Your task to perform on an android device: change the clock style Image 0: 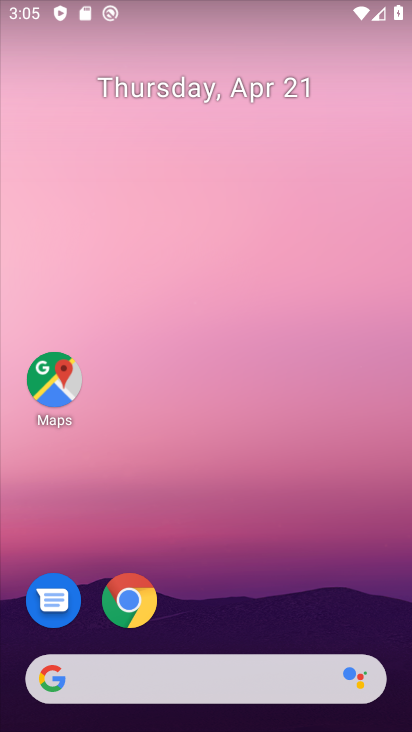
Step 0: drag from (268, 620) to (289, 71)
Your task to perform on an android device: change the clock style Image 1: 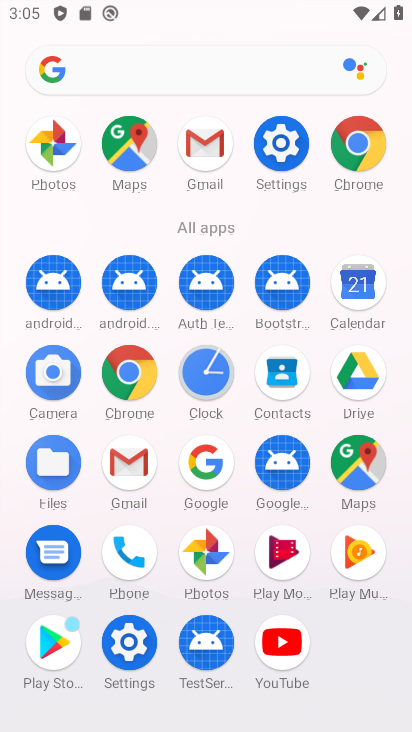
Step 1: click (206, 379)
Your task to perform on an android device: change the clock style Image 2: 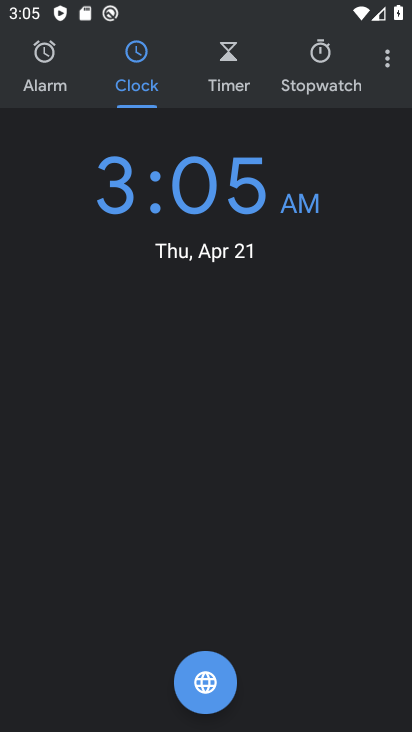
Step 2: click (375, 70)
Your task to perform on an android device: change the clock style Image 3: 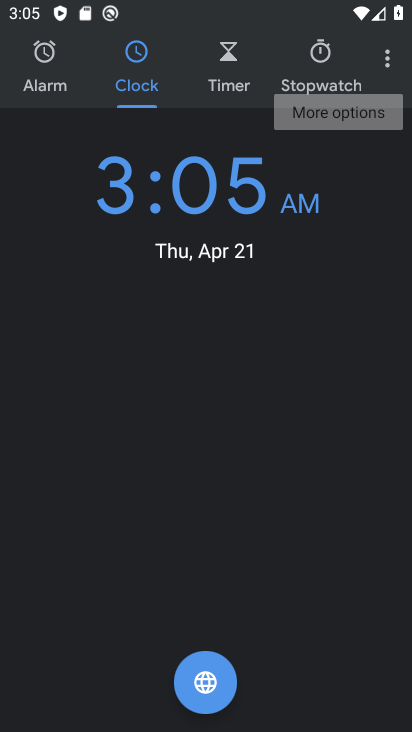
Step 3: click (390, 61)
Your task to perform on an android device: change the clock style Image 4: 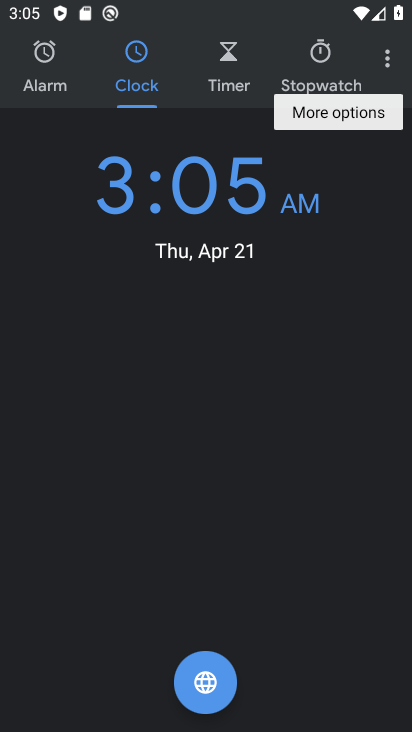
Step 4: click (390, 61)
Your task to perform on an android device: change the clock style Image 5: 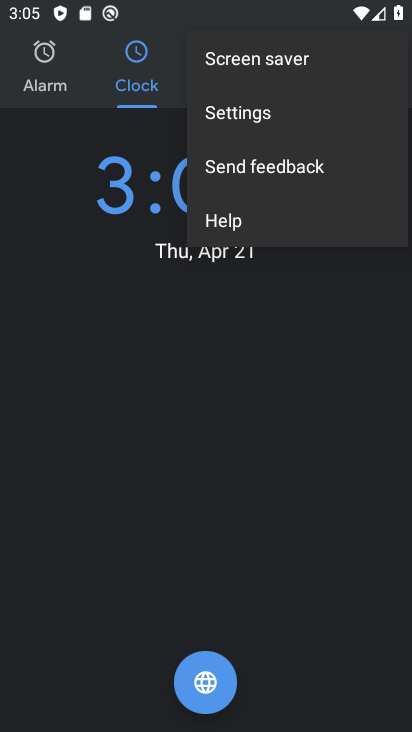
Step 5: click (267, 114)
Your task to perform on an android device: change the clock style Image 6: 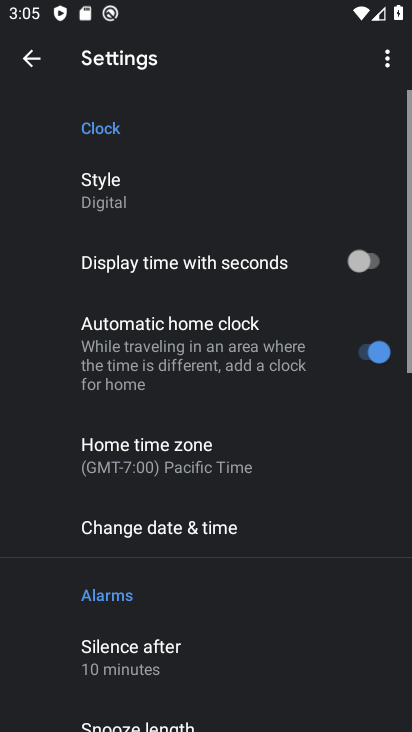
Step 6: click (146, 167)
Your task to perform on an android device: change the clock style Image 7: 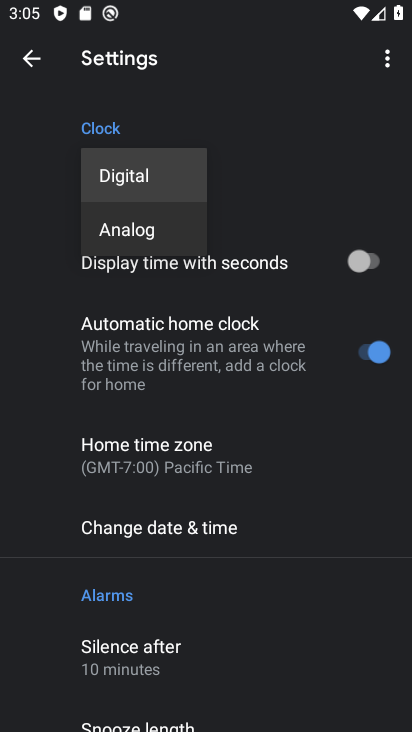
Step 7: click (129, 227)
Your task to perform on an android device: change the clock style Image 8: 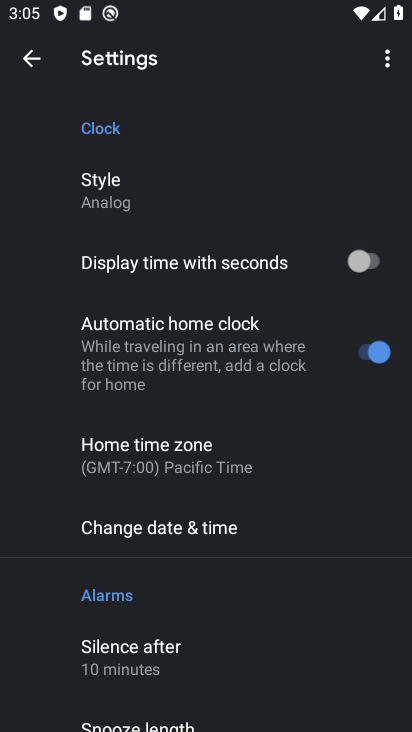
Step 8: task complete